Your task to perform on an android device: Open eBay Image 0: 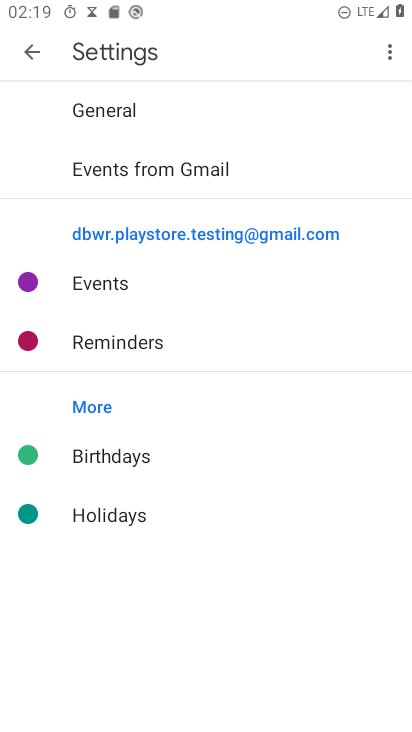
Step 0: press home button
Your task to perform on an android device: Open eBay Image 1: 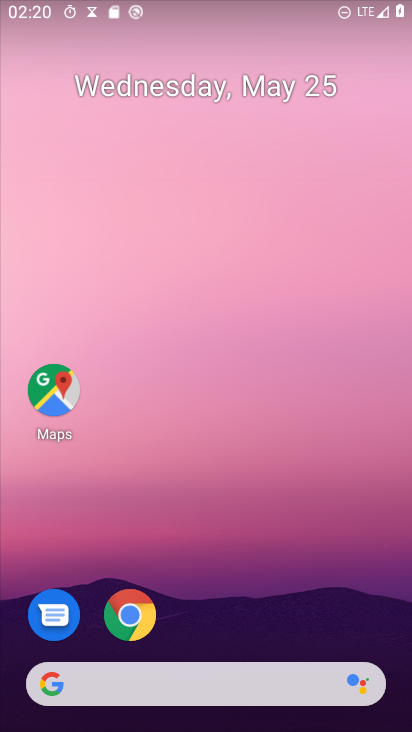
Step 1: drag from (213, 704) to (172, 153)
Your task to perform on an android device: Open eBay Image 2: 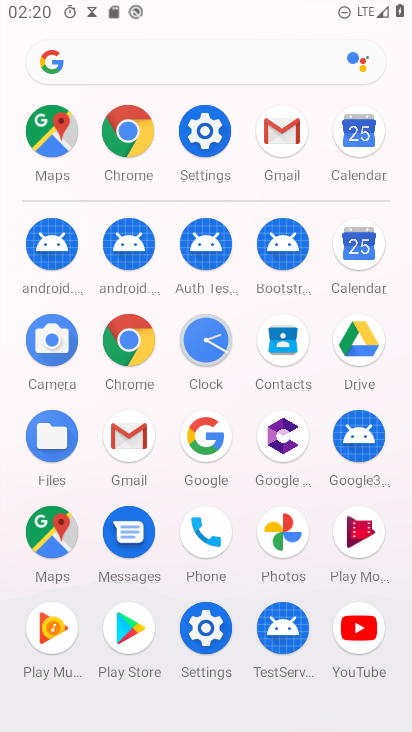
Step 2: click (133, 141)
Your task to perform on an android device: Open eBay Image 3: 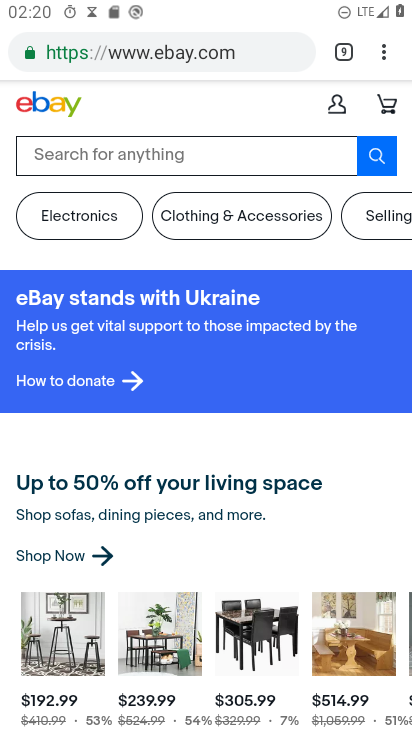
Step 3: click (188, 66)
Your task to perform on an android device: Open eBay Image 4: 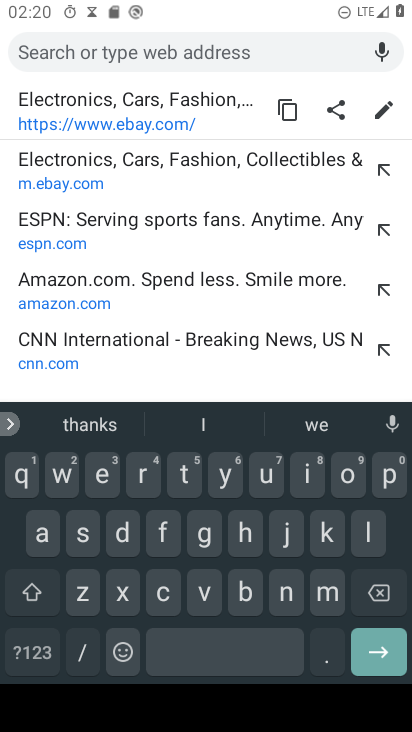
Step 4: click (181, 99)
Your task to perform on an android device: Open eBay Image 5: 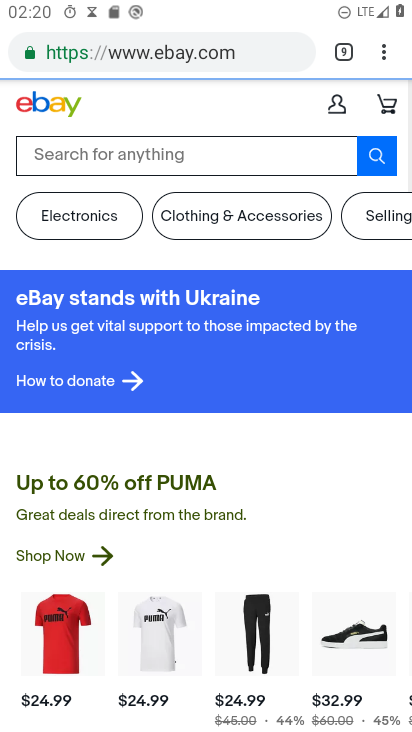
Step 5: task complete